Your task to perform on an android device: Go to network settings Image 0: 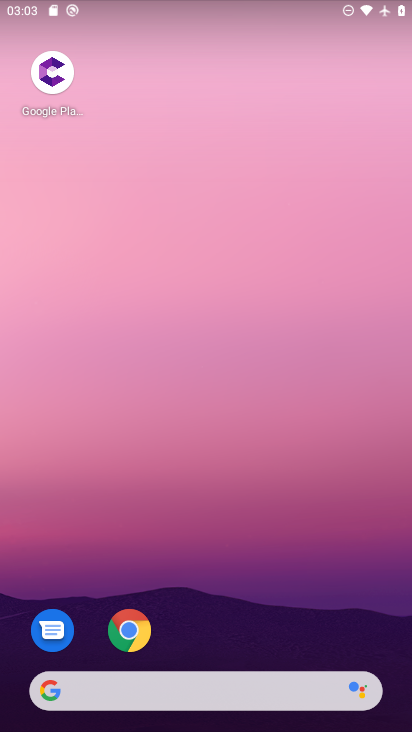
Step 0: press home button
Your task to perform on an android device: Go to network settings Image 1: 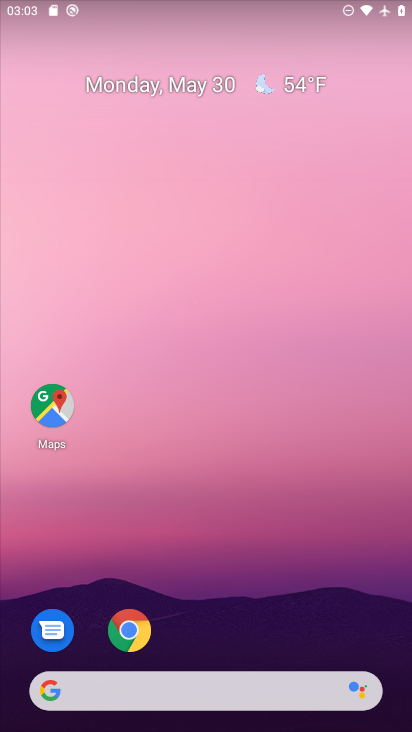
Step 1: drag from (185, 701) to (240, 364)
Your task to perform on an android device: Go to network settings Image 2: 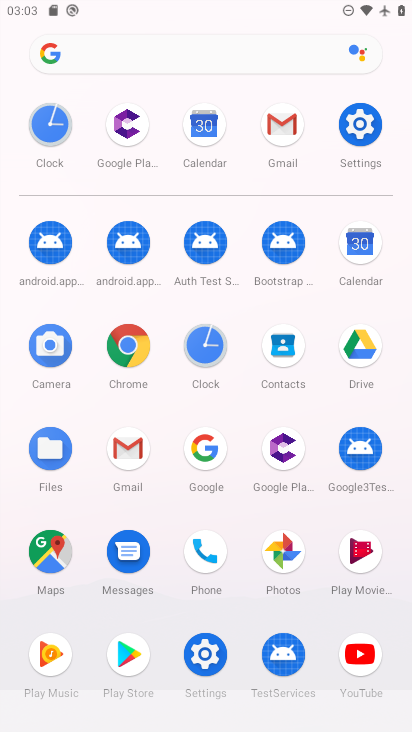
Step 2: click (351, 127)
Your task to perform on an android device: Go to network settings Image 3: 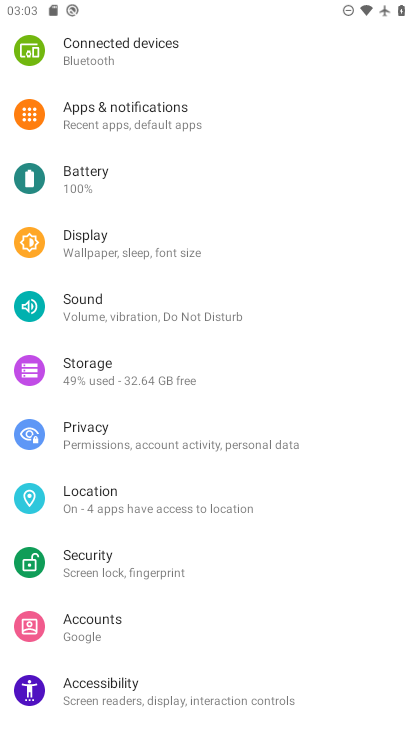
Step 3: drag from (270, 119) to (163, 515)
Your task to perform on an android device: Go to network settings Image 4: 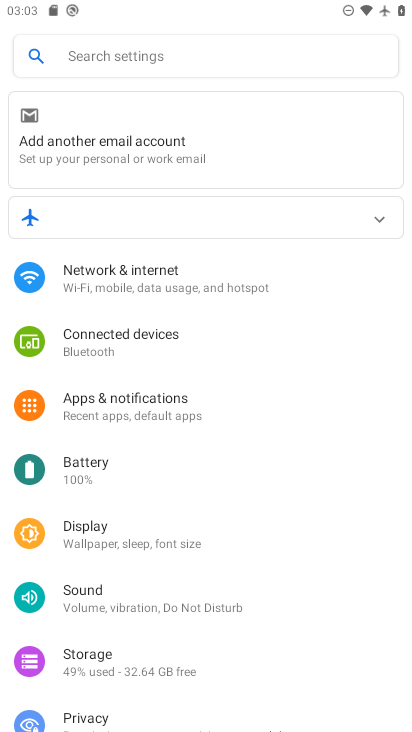
Step 4: click (123, 272)
Your task to perform on an android device: Go to network settings Image 5: 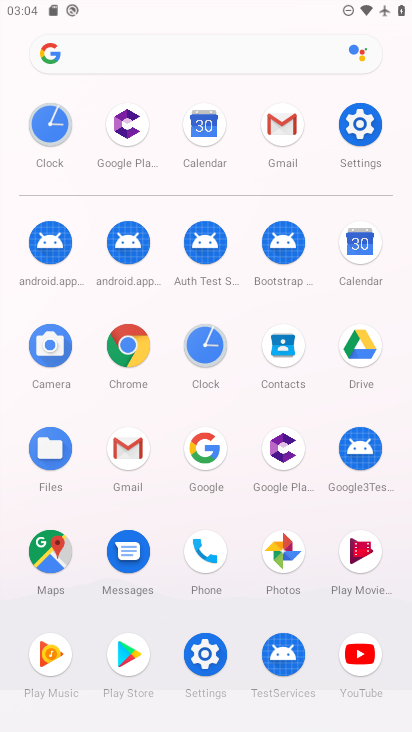
Step 5: click (357, 131)
Your task to perform on an android device: Go to network settings Image 6: 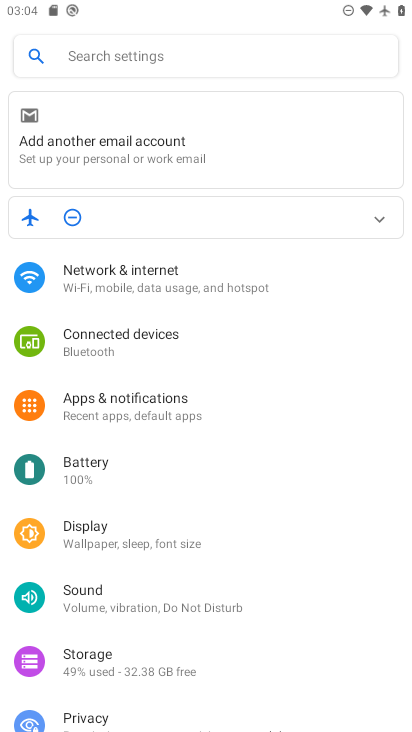
Step 6: click (97, 266)
Your task to perform on an android device: Go to network settings Image 7: 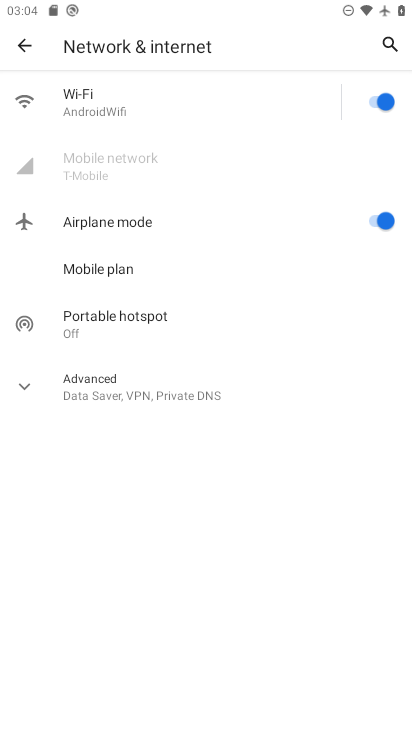
Step 7: task complete